Your task to perform on an android device: check battery use Image 0: 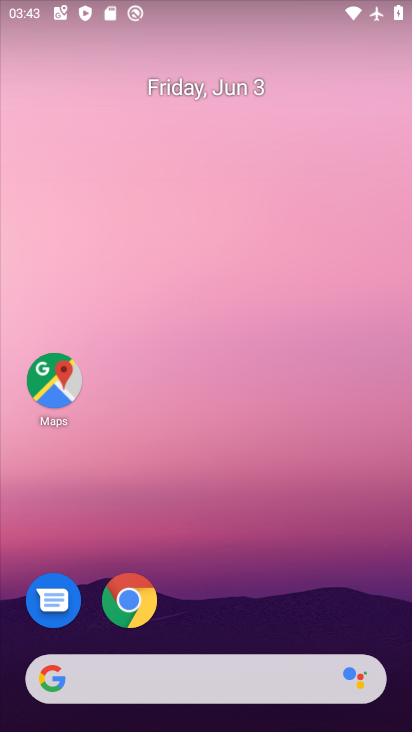
Step 0: drag from (216, 627) to (400, 43)
Your task to perform on an android device: check battery use Image 1: 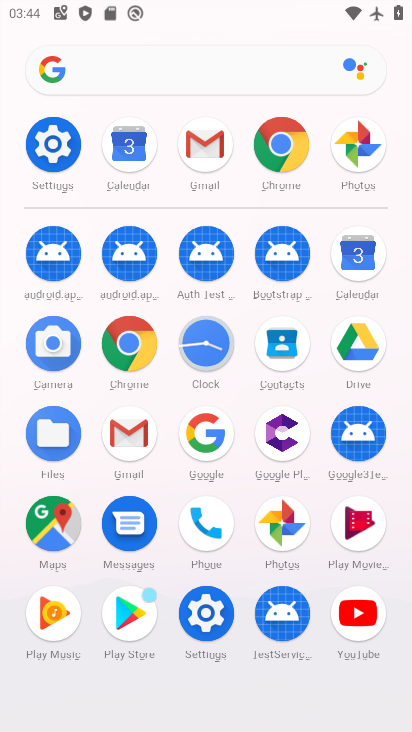
Step 1: click (53, 166)
Your task to perform on an android device: check battery use Image 2: 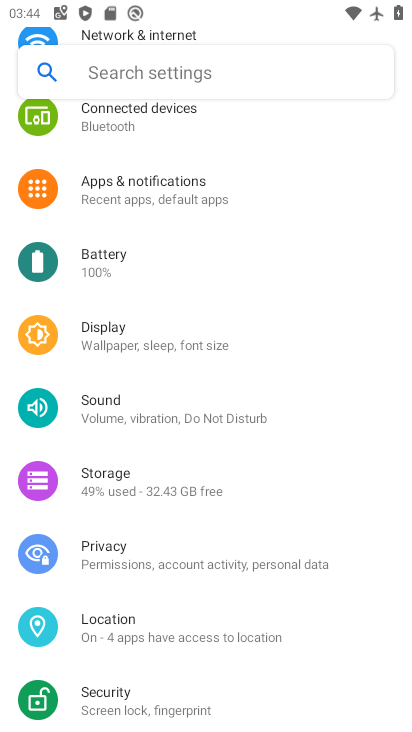
Step 2: click (133, 263)
Your task to perform on an android device: check battery use Image 3: 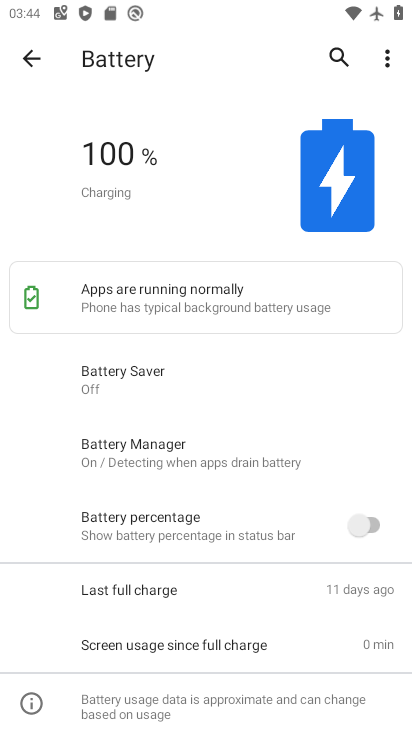
Step 3: click (387, 69)
Your task to perform on an android device: check battery use Image 4: 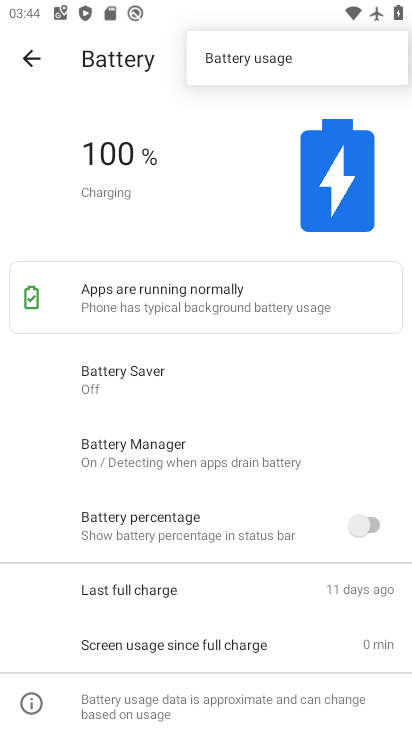
Step 4: click (320, 55)
Your task to perform on an android device: check battery use Image 5: 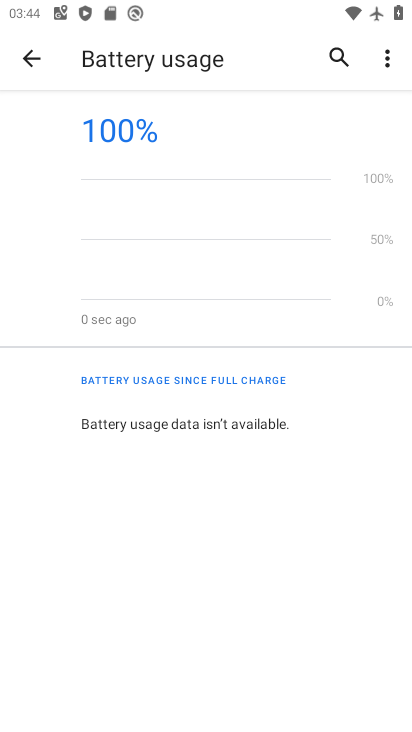
Step 5: task complete